Your task to perform on an android device: Turn off the flashlight Image 0: 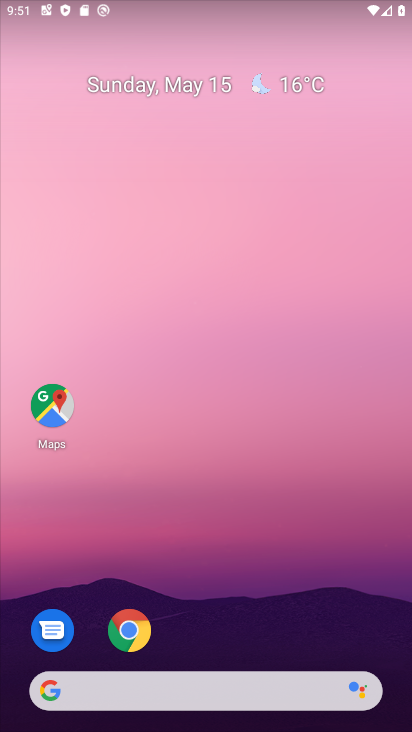
Step 0: drag from (239, 541) to (239, 133)
Your task to perform on an android device: Turn off the flashlight Image 1: 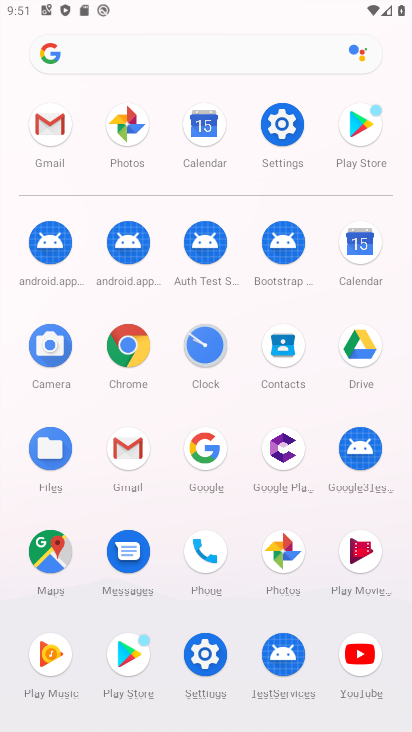
Step 1: click (261, 131)
Your task to perform on an android device: Turn off the flashlight Image 2: 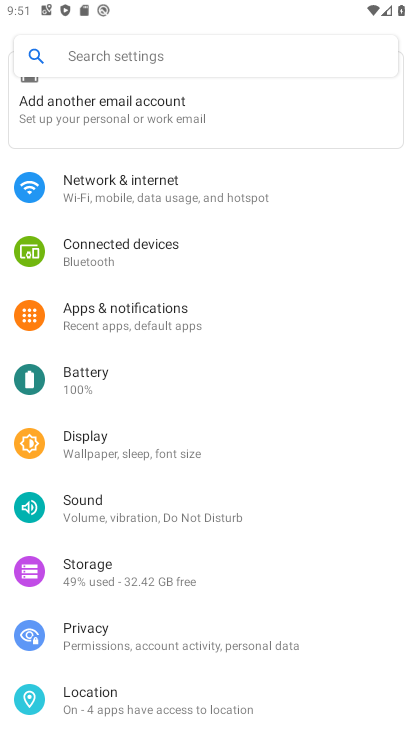
Step 2: task complete